Your task to perform on an android device: Play the last video I watched on Youtube Image 0: 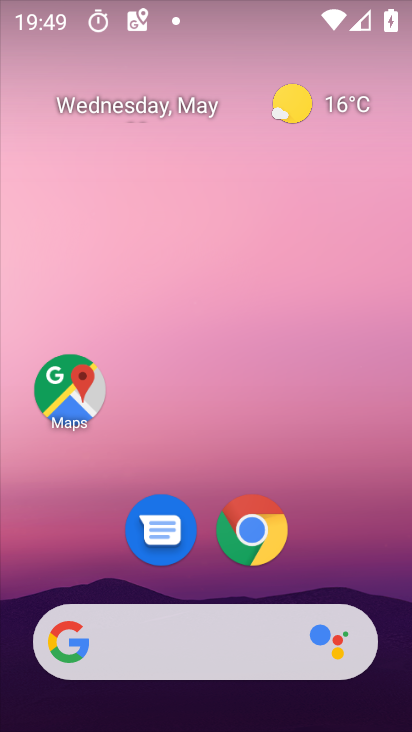
Step 0: drag from (199, 564) to (233, 235)
Your task to perform on an android device: Play the last video I watched on Youtube Image 1: 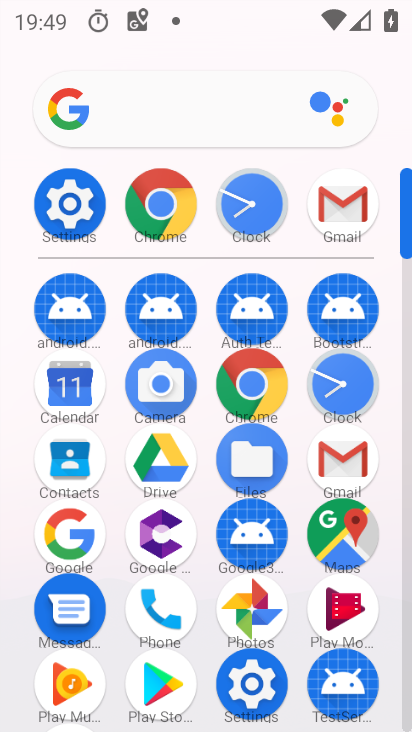
Step 1: drag from (206, 575) to (221, 293)
Your task to perform on an android device: Play the last video I watched on Youtube Image 2: 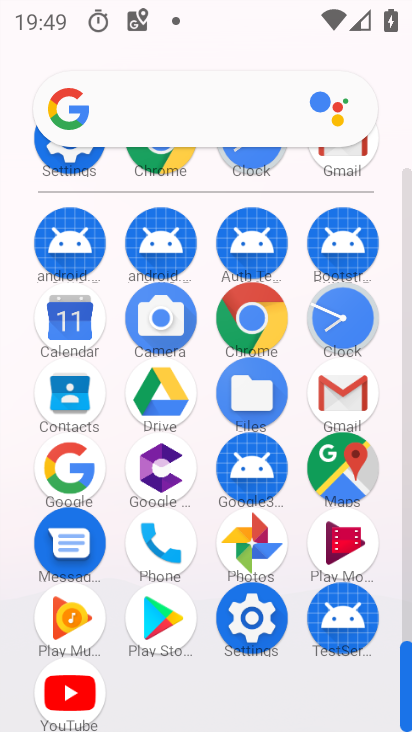
Step 2: click (72, 701)
Your task to perform on an android device: Play the last video I watched on Youtube Image 3: 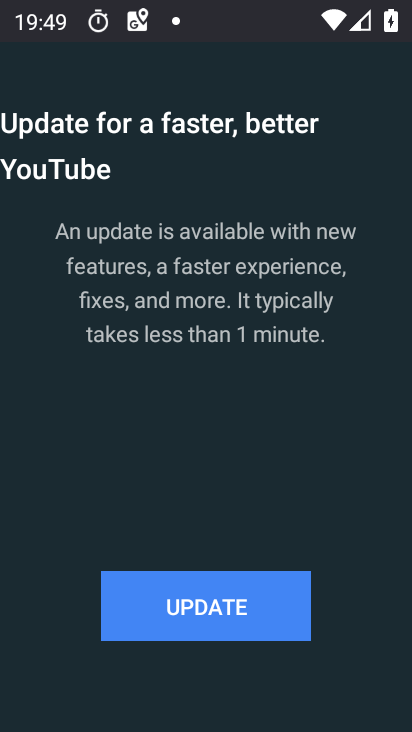
Step 3: click (187, 622)
Your task to perform on an android device: Play the last video I watched on Youtube Image 4: 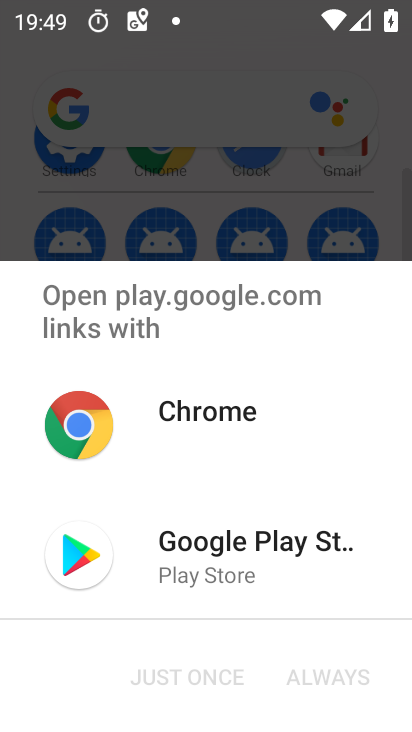
Step 4: click (283, 546)
Your task to perform on an android device: Play the last video I watched on Youtube Image 5: 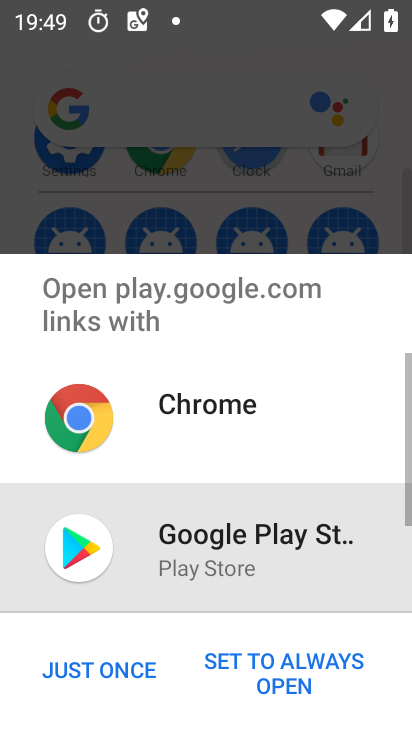
Step 5: click (117, 678)
Your task to perform on an android device: Play the last video I watched on Youtube Image 6: 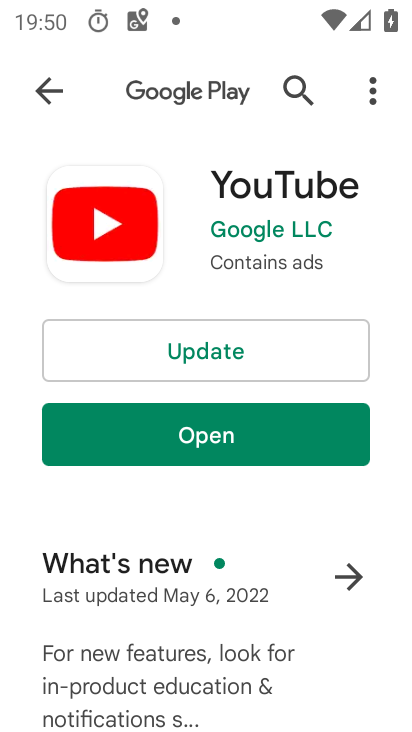
Step 6: click (223, 352)
Your task to perform on an android device: Play the last video I watched on Youtube Image 7: 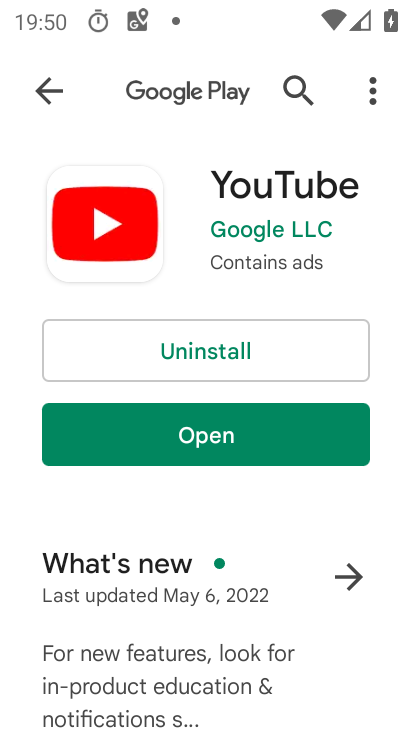
Step 7: click (233, 451)
Your task to perform on an android device: Play the last video I watched on Youtube Image 8: 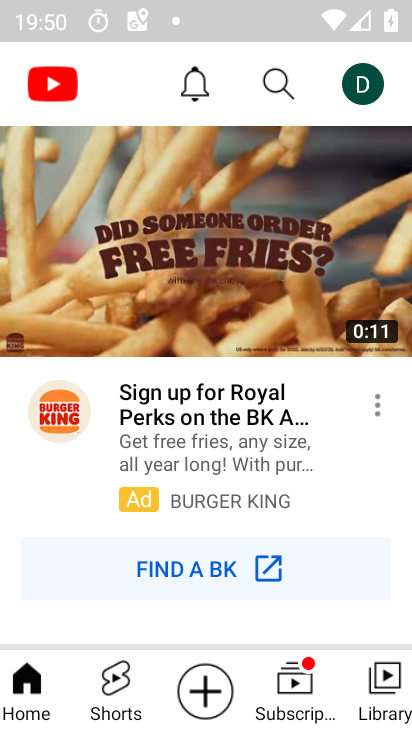
Step 8: click (371, 712)
Your task to perform on an android device: Play the last video I watched on Youtube Image 9: 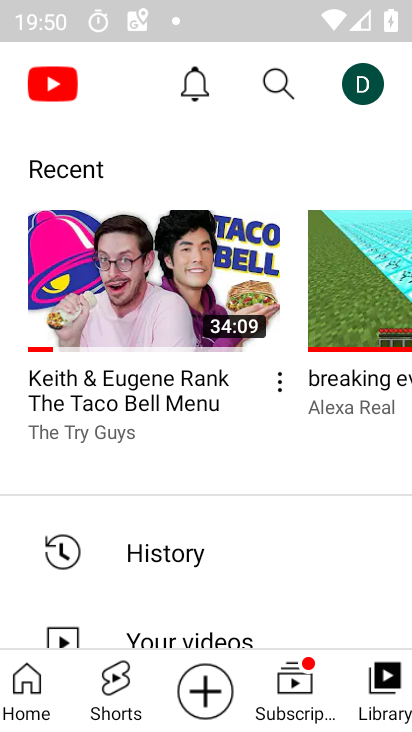
Step 9: click (78, 272)
Your task to perform on an android device: Play the last video I watched on Youtube Image 10: 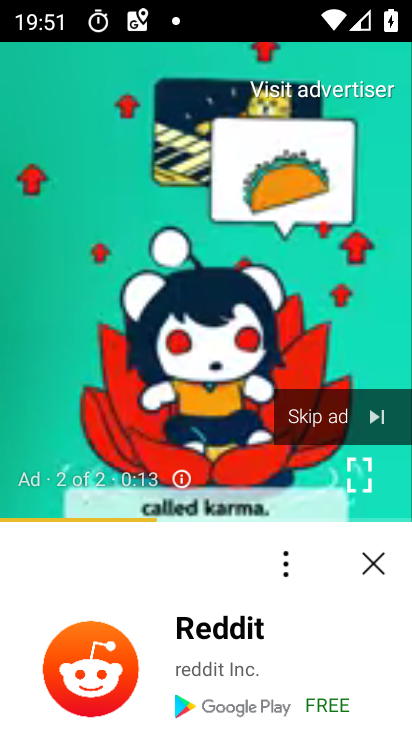
Step 10: click (338, 426)
Your task to perform on an android device: Play the last video I watched on Youtube Image 11: 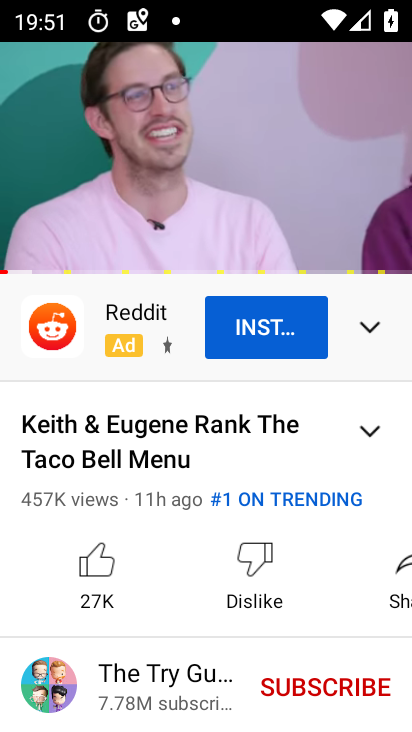
Step 11: task complete